Your task to perform on an android device: Check the weather Image 0: 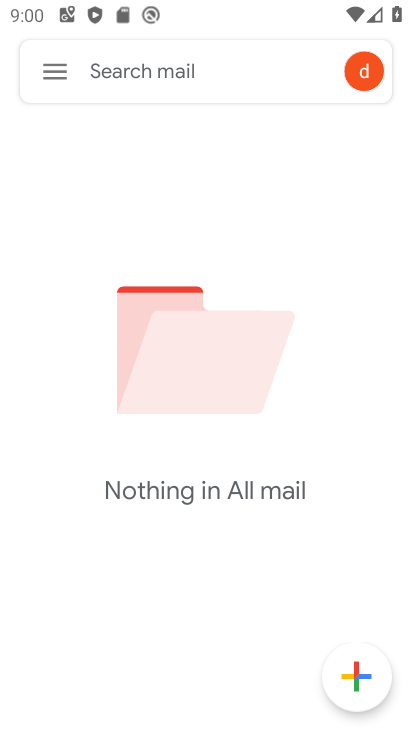
Step 0: press home button
Your task to perform on an android device: Check the weather Image 1: 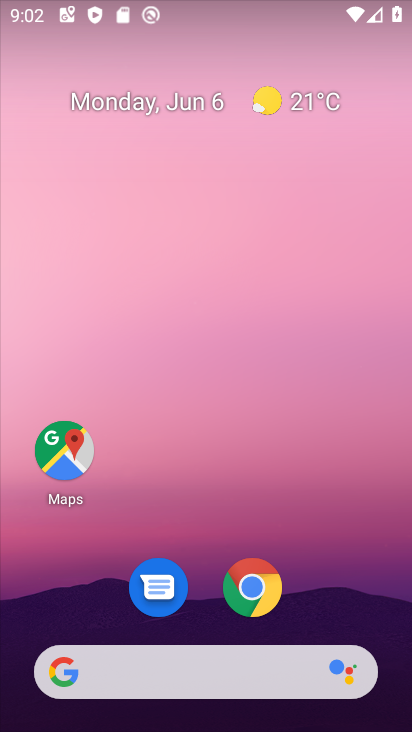
Step 1: click (242, 665)
Your task to perform on an android device: Check the weather Image 2: 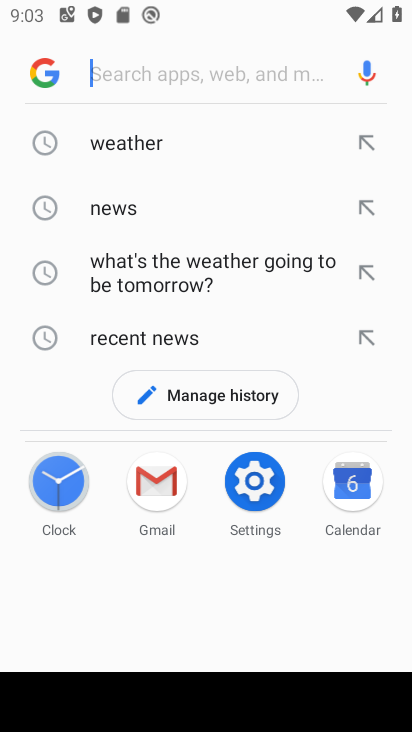
Step 2: click (132, 144)
Your task to perform on an android device: Check the weather Image 3: 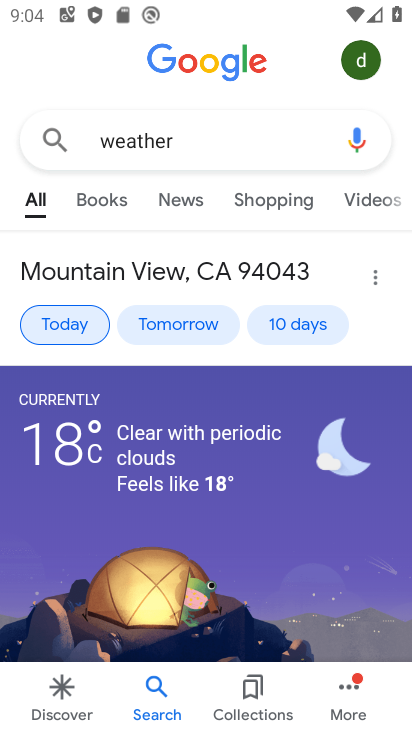
Step 3: task complete